Your task to perform on an android device: turn on airplane mode Image 0: 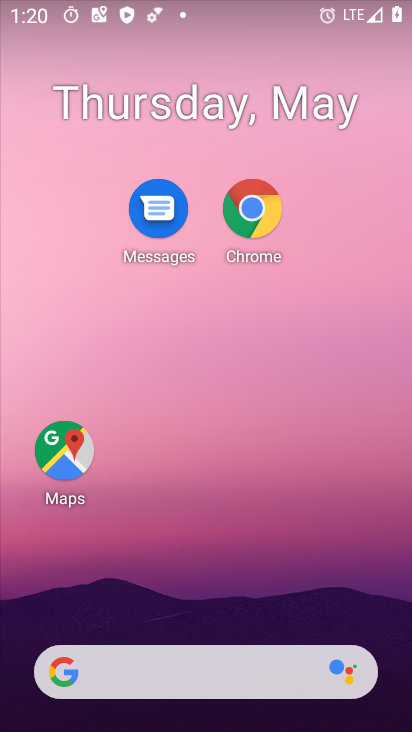
Step 0: drag from (184, 624) to (264, 22)
Your task to perform on an android device: turn on airplane mode Image 1: 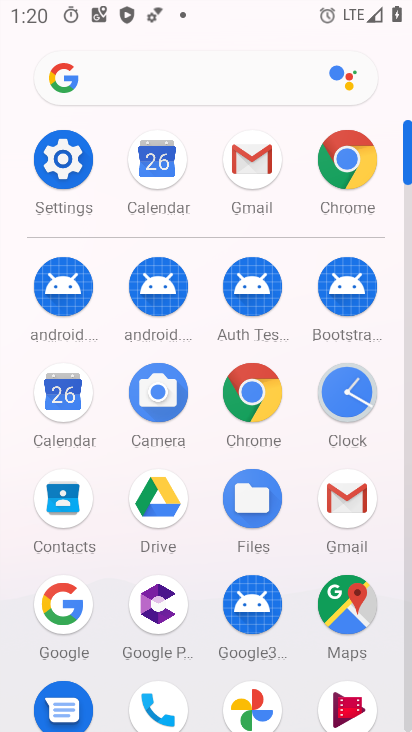
Step 1: click (63, 164)
Your task to perform on an android device: turn on airplane mode Image 2: 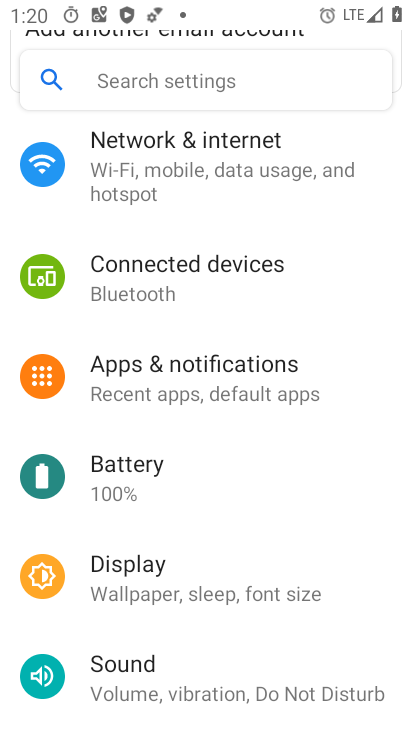
Step 2: click (205, 208)
Your task to perform on an android device: turn on airplane mode Image 3: 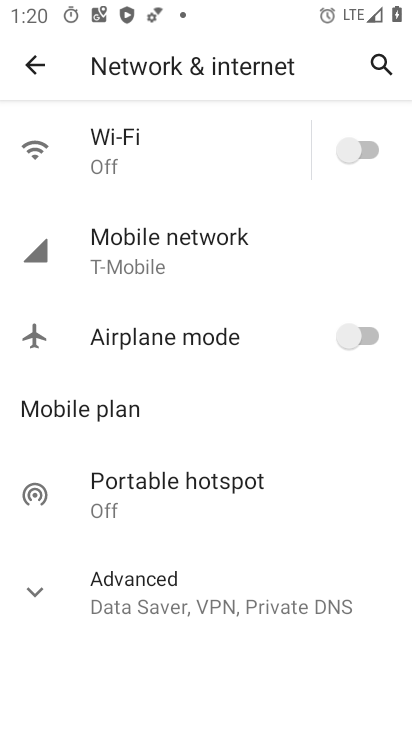
Step 3: click (380, 327)
Your task to perform on an android device: turn on airplane mode Image 4: 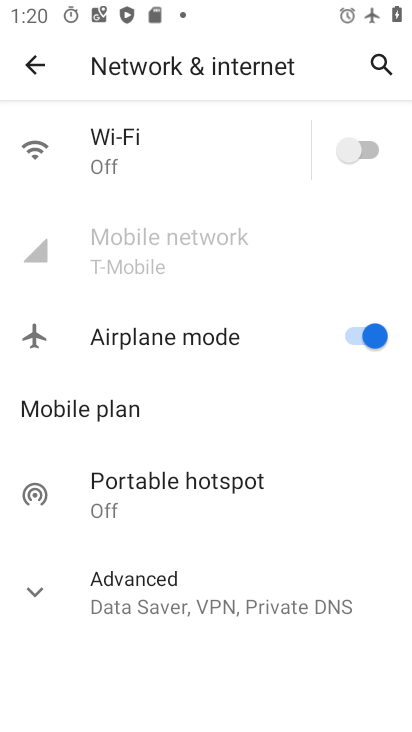
Step 4: task complete